Your task to perform on an android device: open a bookmark in the chrome app Image 0: 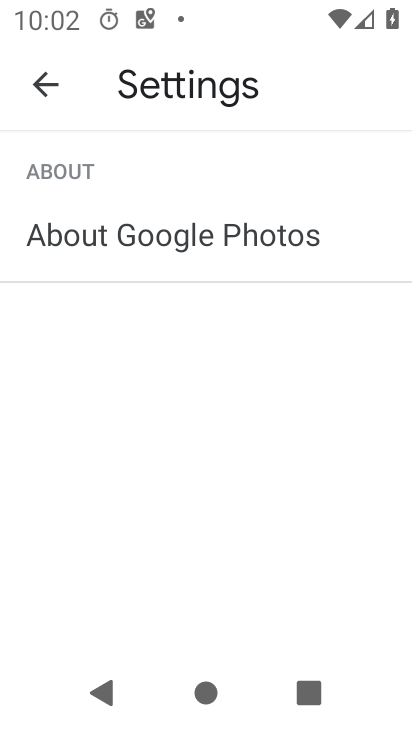
Step 0: press home button
Your task to perform on an android device: open a bookmark in the chrome app Image 1: 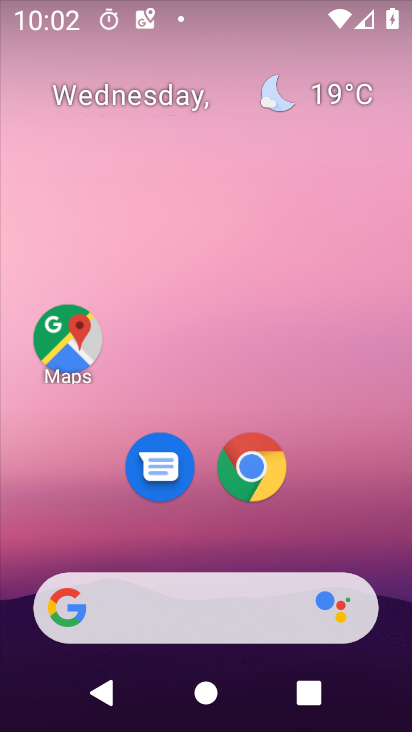
Step 1: click (259, 465)
Your task to perform on an android device: open a bookmark in the chrome app Image 2: 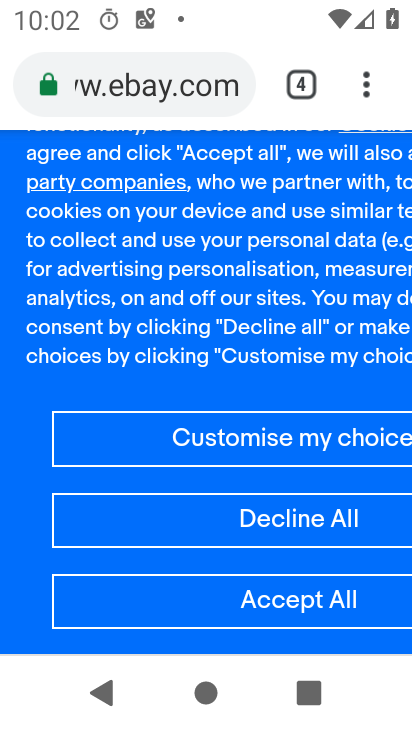
Step 2: click (375, 84)
Your task to perform on an android device: open a bookmark in the chrome app Image 3: 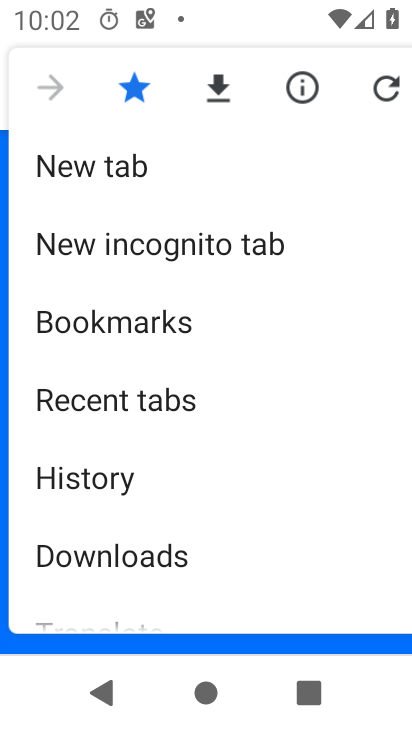
Step 3: click (160, 348)
Your task to perform on an android device: open a bookmark in the chrome app Image 4: 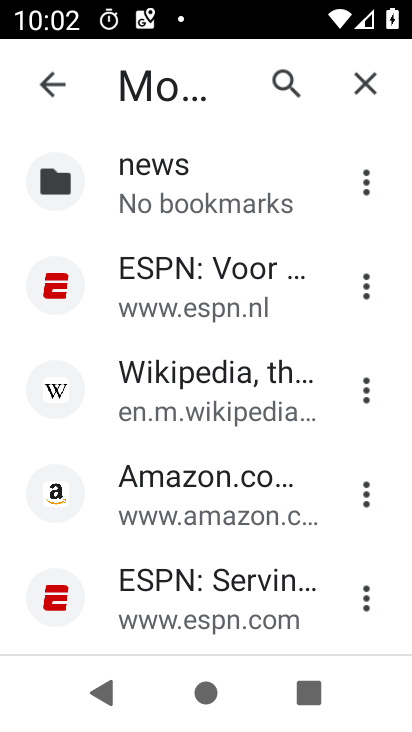
Step 4: drag from (244, 611) to (206, 149)
Your task to perform on an android device: open a bookmark in the chrome app Image 5: 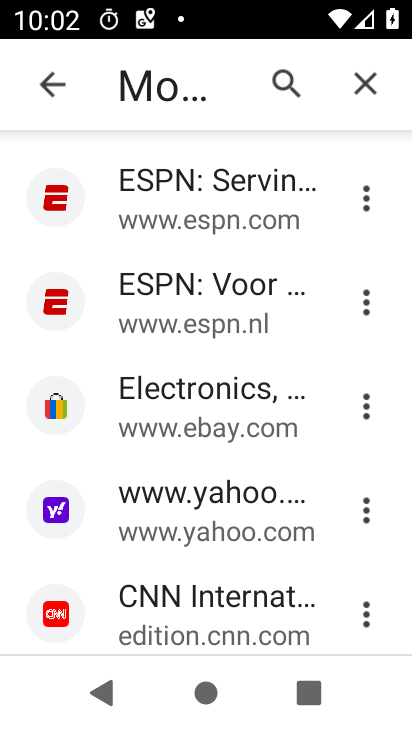
Step 5: click (180, 326)
Your task to perform on an android device: open a bookmark in the chrome app Image 6: 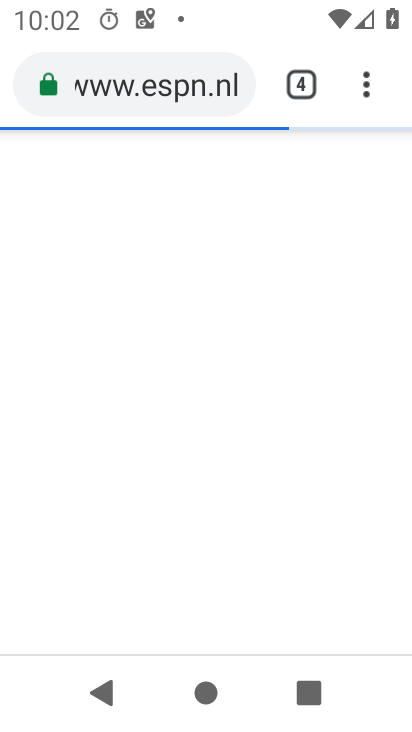
Step 6: task complete